Your task to perform on an android device: Open Wikipedia Image 0: 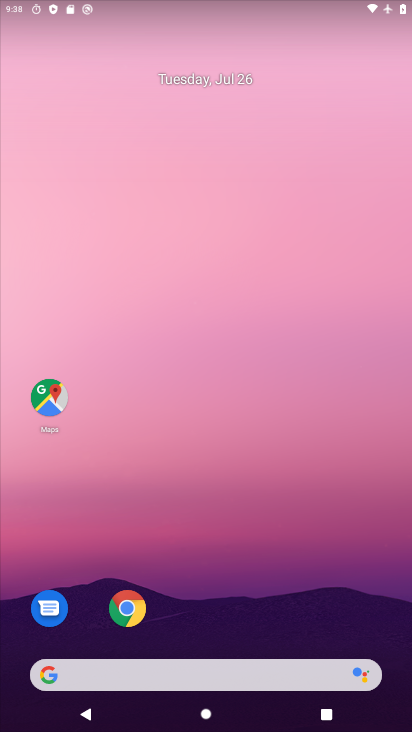
Step 0: click (128, 612)
Your task to perform on an android device: Open Wikipedia Image 1: 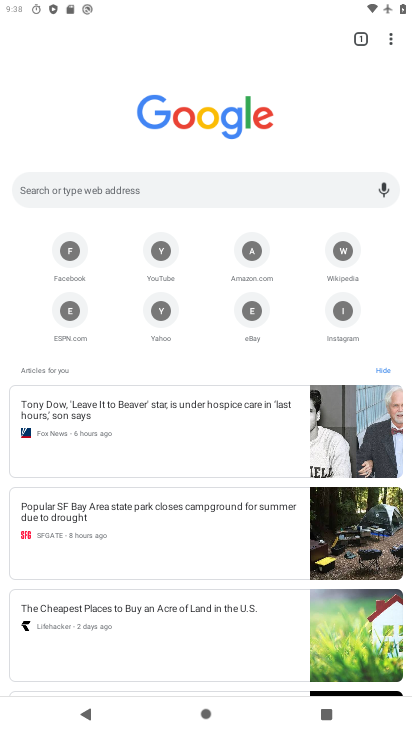
Step 1: click (328, 248)
Your task to perform on an android device: Open Wikipedia Image 2: 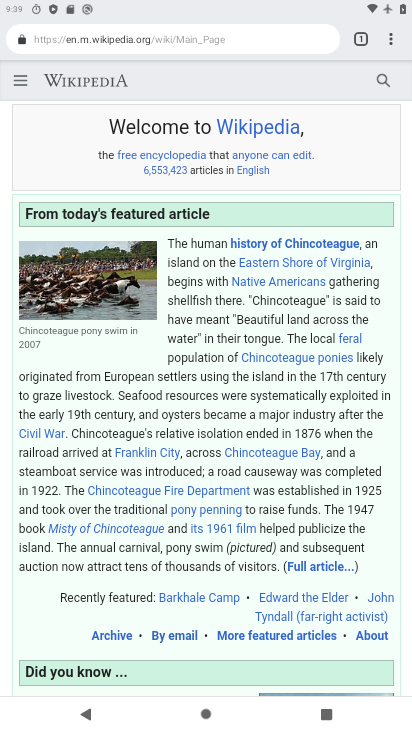
Step 2: task complete